Your task to perform on an android device: open a bookmark in the chrome app Image 0: 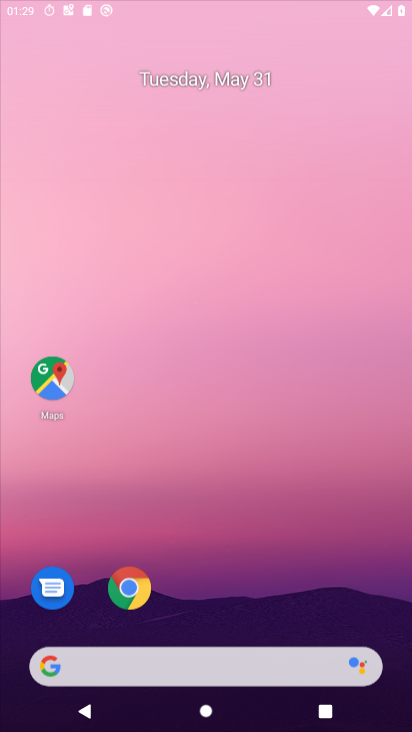
Step 0: drag from (224, 703) to (228, 6)
Your task to perform on an android device: open a bookmark in the chrome app Image 1: 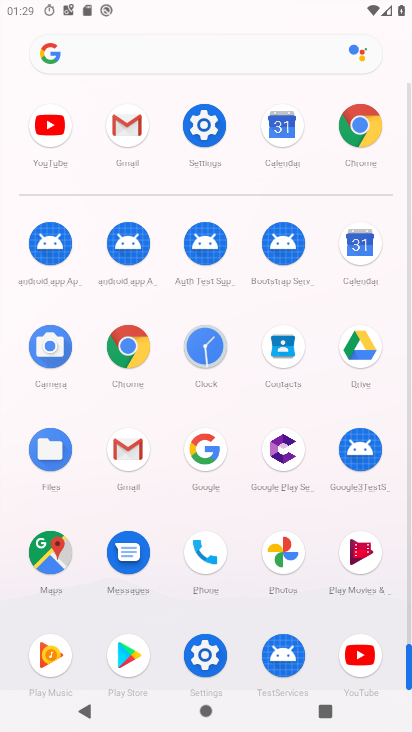
Step 1: click (130, 354)
Your task to perform on an android device: open a bookmark in the chrome app Image 2: 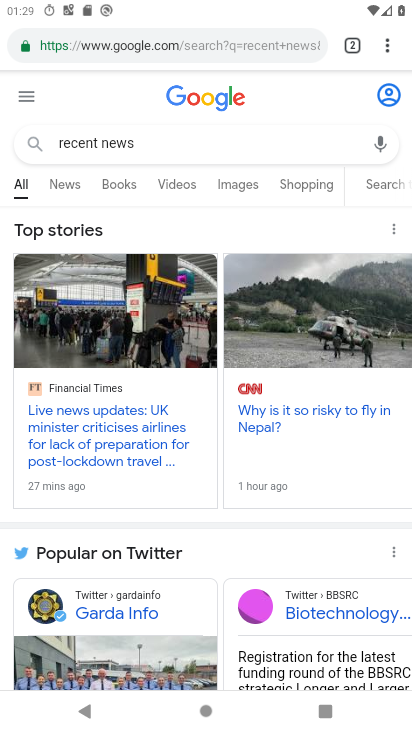
Step 2: click (386, 46)
Your task to perform on an android device: open a bookmark in the chrome app Image 3: 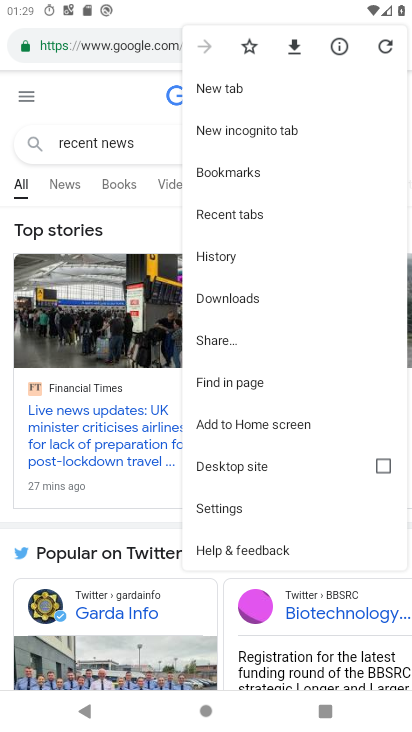
Step 3: click (267, 174)
Your task to perform on an android device: open a bookmark in the chrome app Image 4: 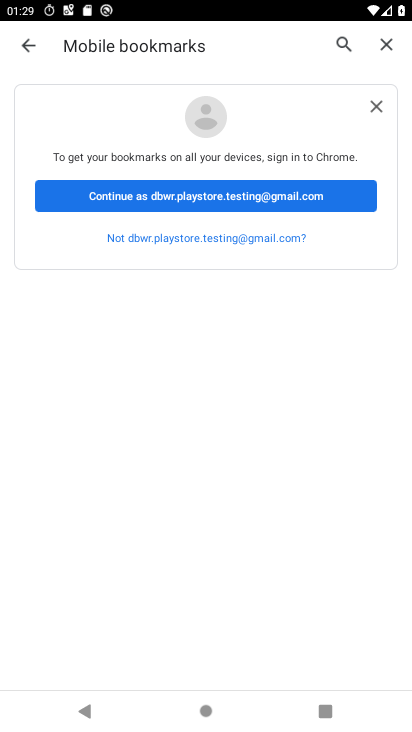
Step 4: task complete